Your task to perform on an android device: Go to settings Image 0: 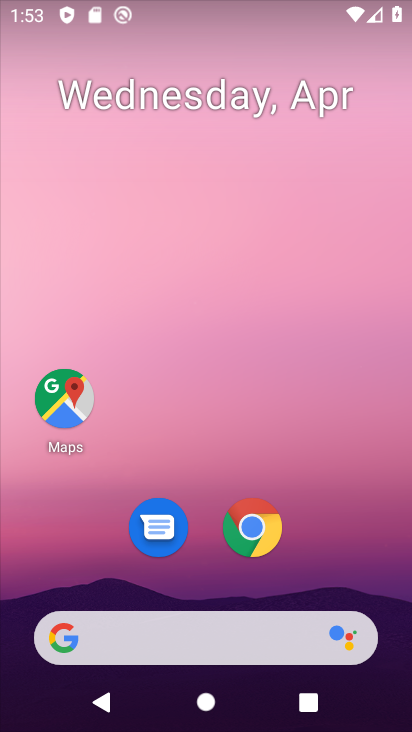
Step 0: drag from (172, 568) to (218, 215)
Your task to perform on an android device: Go to settings Image 1: 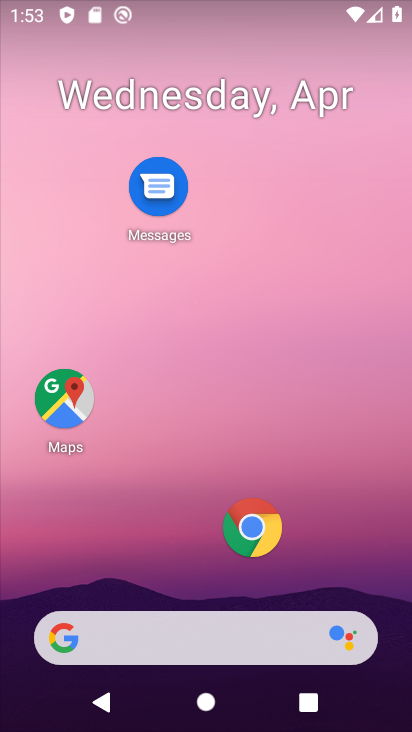
Step 1: drag from (180, 599) to (193, 251)
Your task to perform on an android device: Go to settings Image 2: 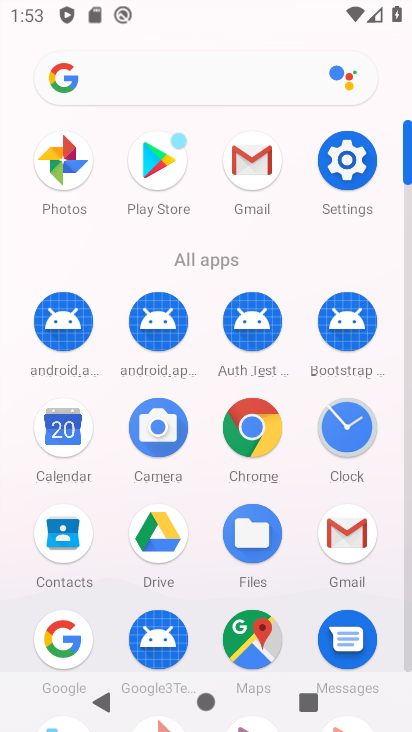
Step 2: drag from (230, 576) to (254, 245)
Your task to perform on an android device: Go to settings Image 3: 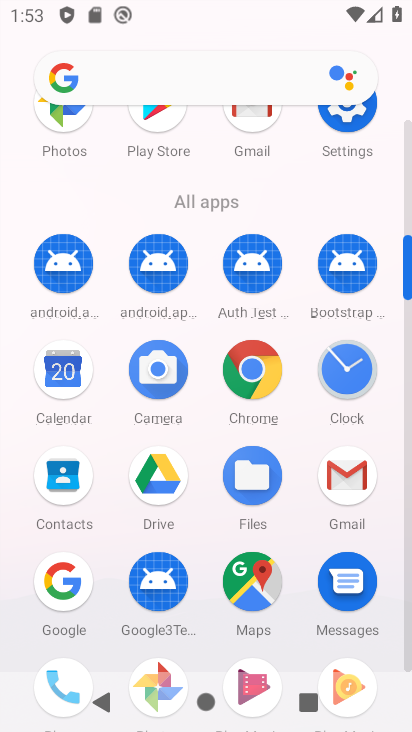
Step 3: drag from (205, 602) to (226, 314)
Your task to perform on an android device: Go to settings Image 4: 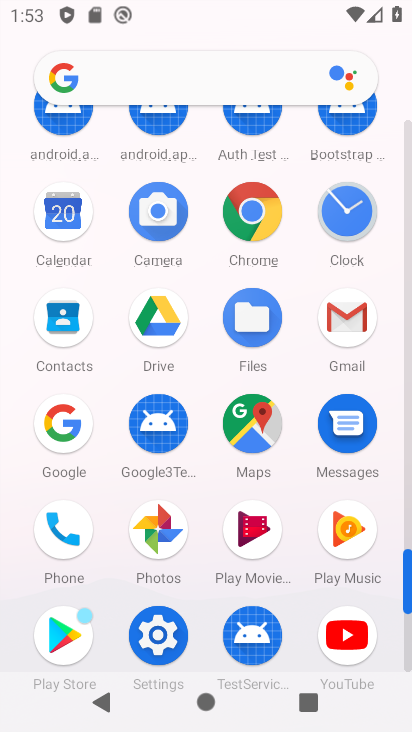
Step 4: click (161, 638)
Your task to perform on an android device: Go to settings Image 5: 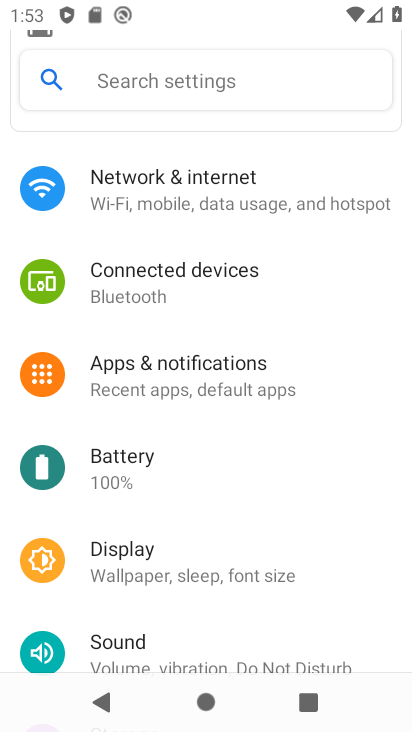
Step 5: task complete